Your task to perform on an android device: What's the weather? Image 0: 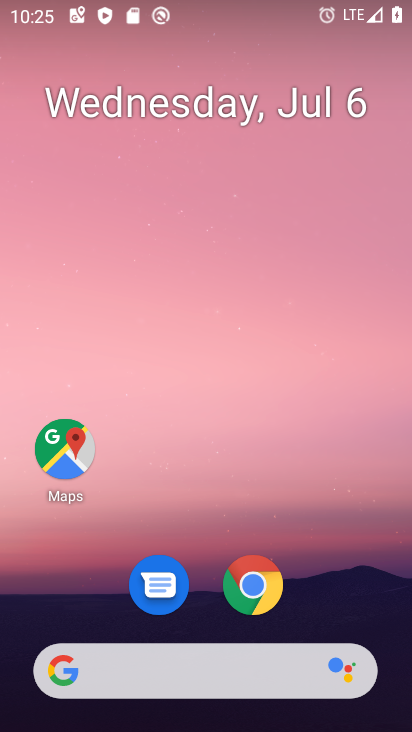
Step 0: click (236, 677)
Your task to perform on an android device: What's the weather? Image 1: 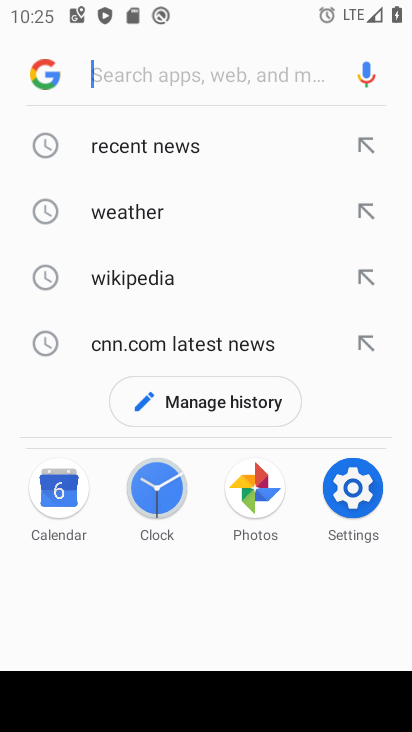
Step 1: click (141, 211)
Your task to perform on an android device: What's the weather? Image 2: 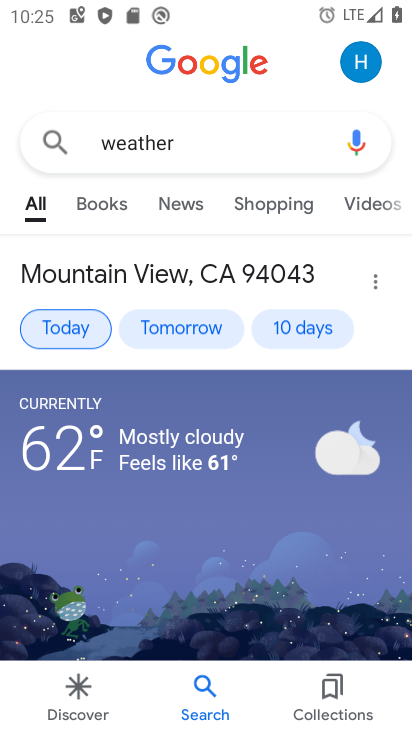
Step 2: click (76, 329)
Your task to perform on an android device: What's the weather? Image 3: 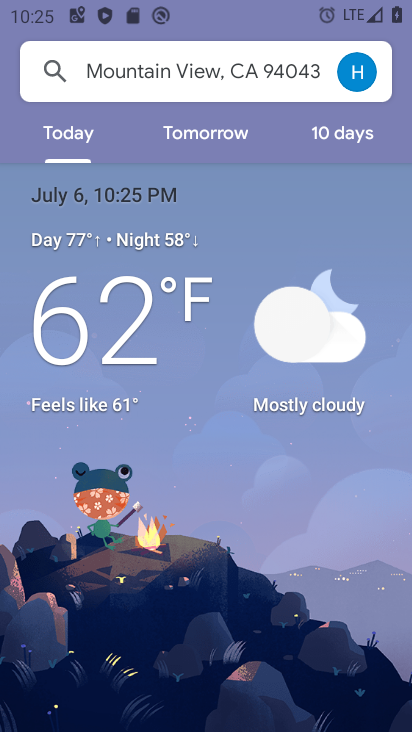
Step 3: task complete